Your task to perform on an android device: Where can I buy a nice beach umbrella? Image 0: 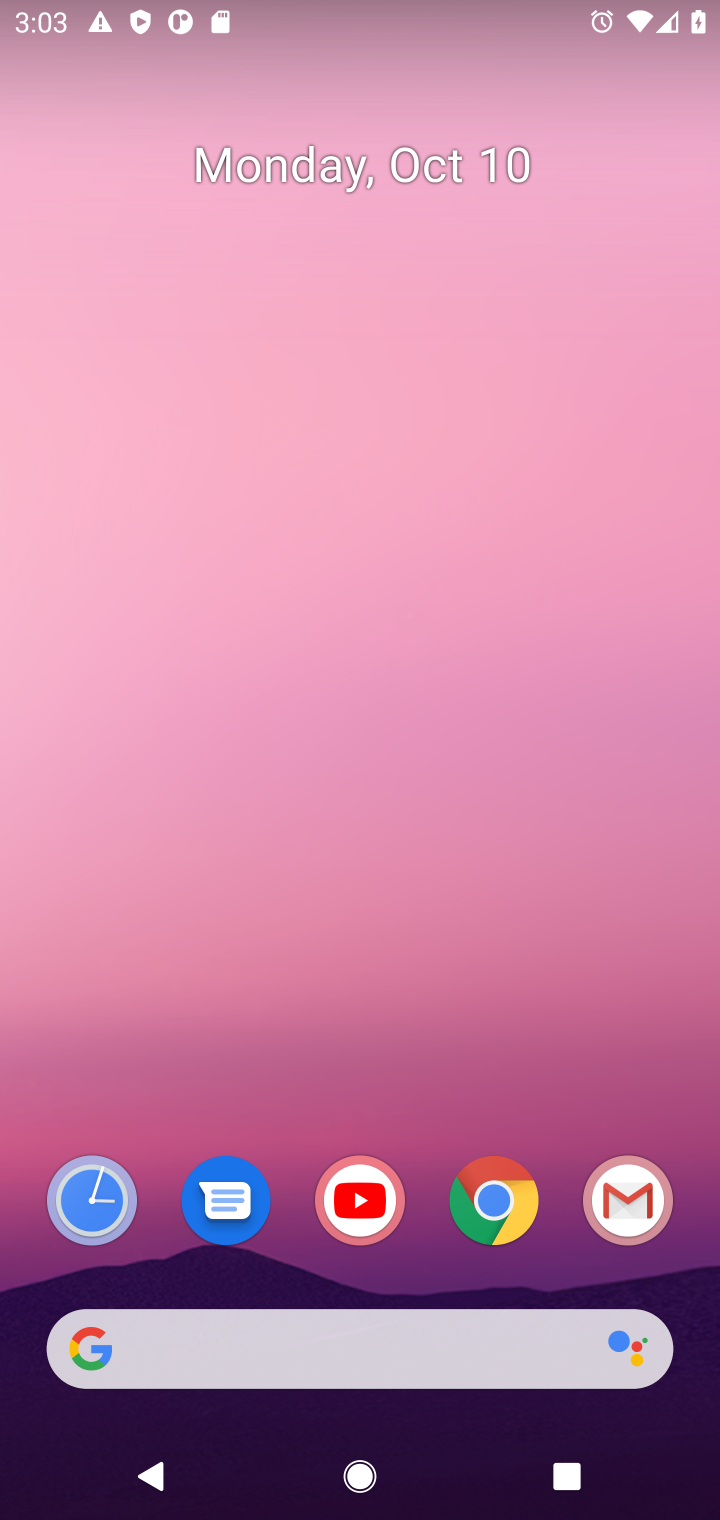
Step 0: click (499, 1202)
Your task to perform on an android device: Where can I buy a nice beach umbrella? Image 1: 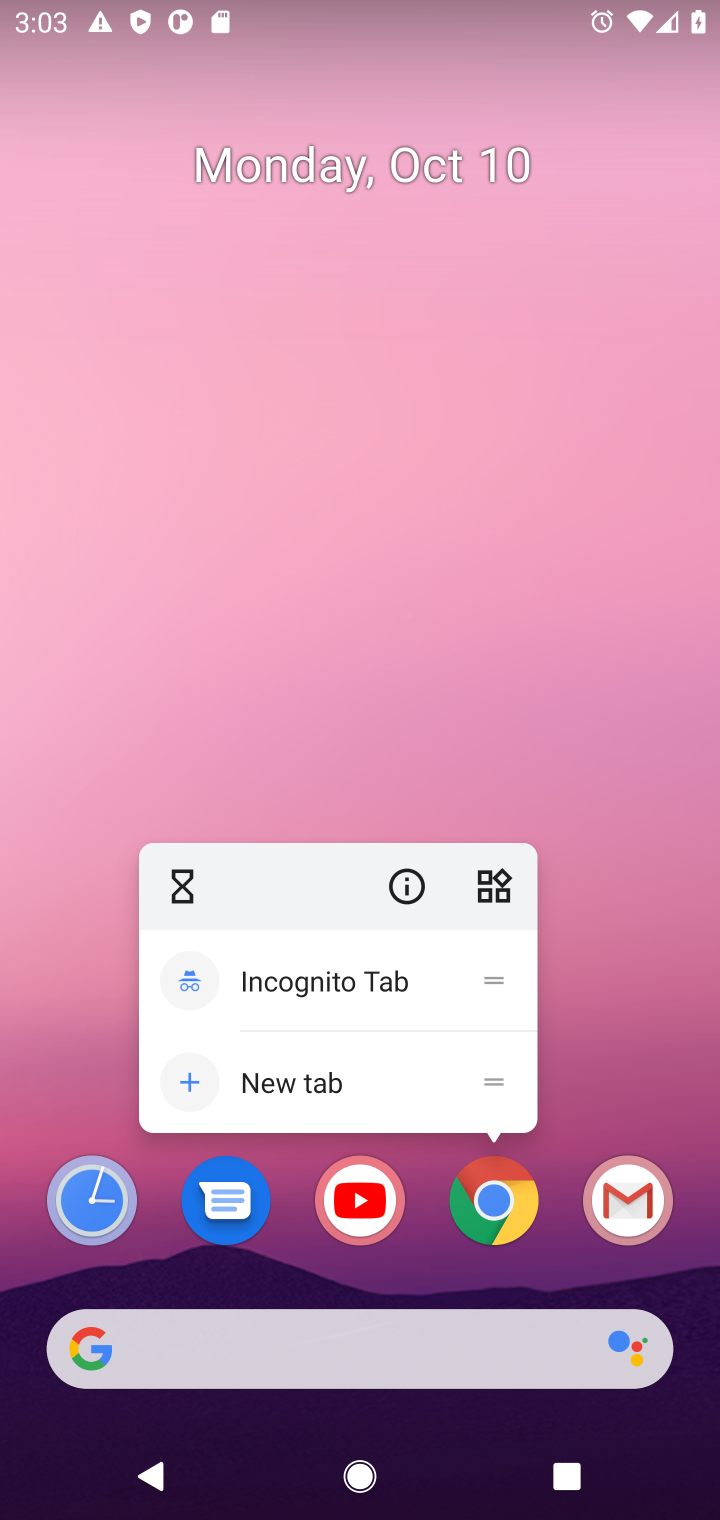
Step 1: click (507, 1223)
Your task to perform on an android device: Where can I buy a nice beach umbrella? Image 2: 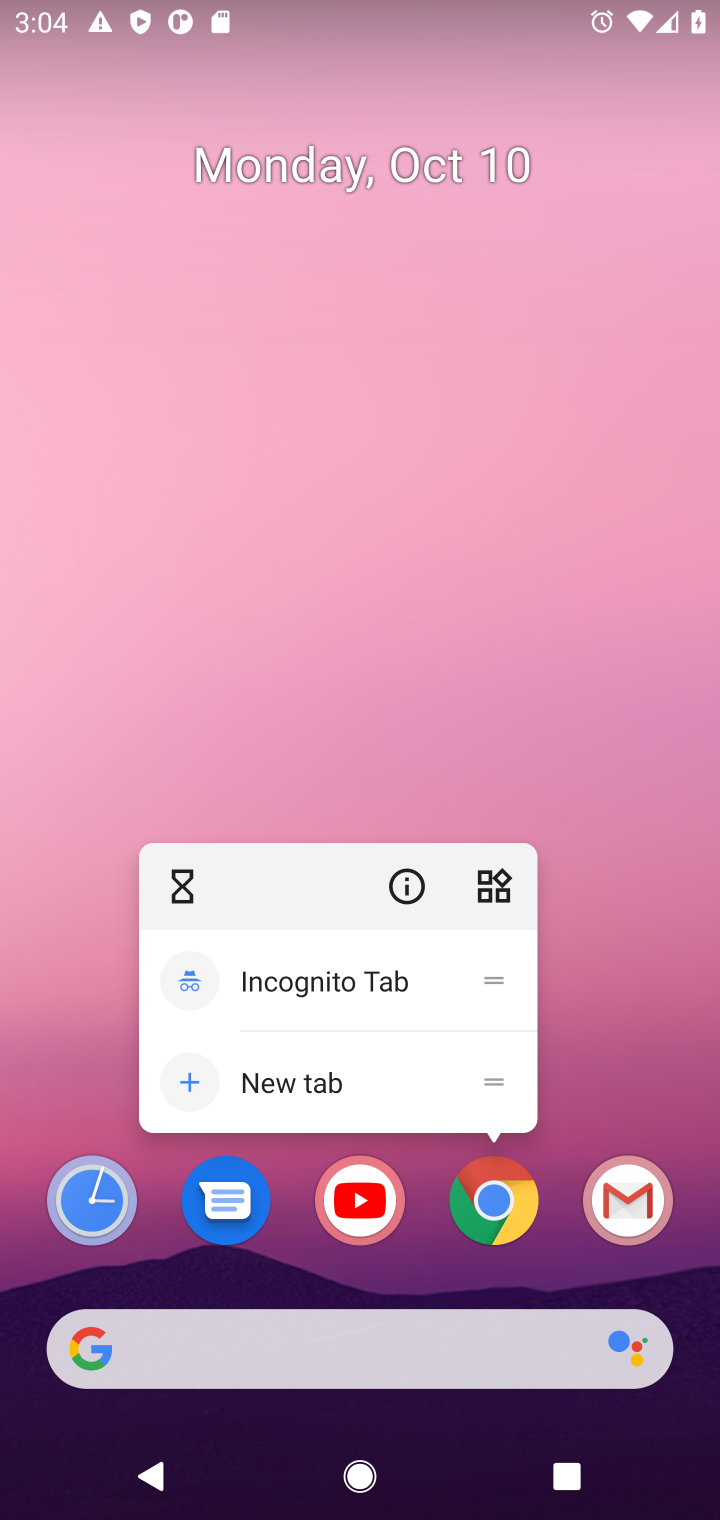
Step 2: click (486, 1213)
Your task to perform on an android device: Where can I buy a nice beach umbrella? Image 3: 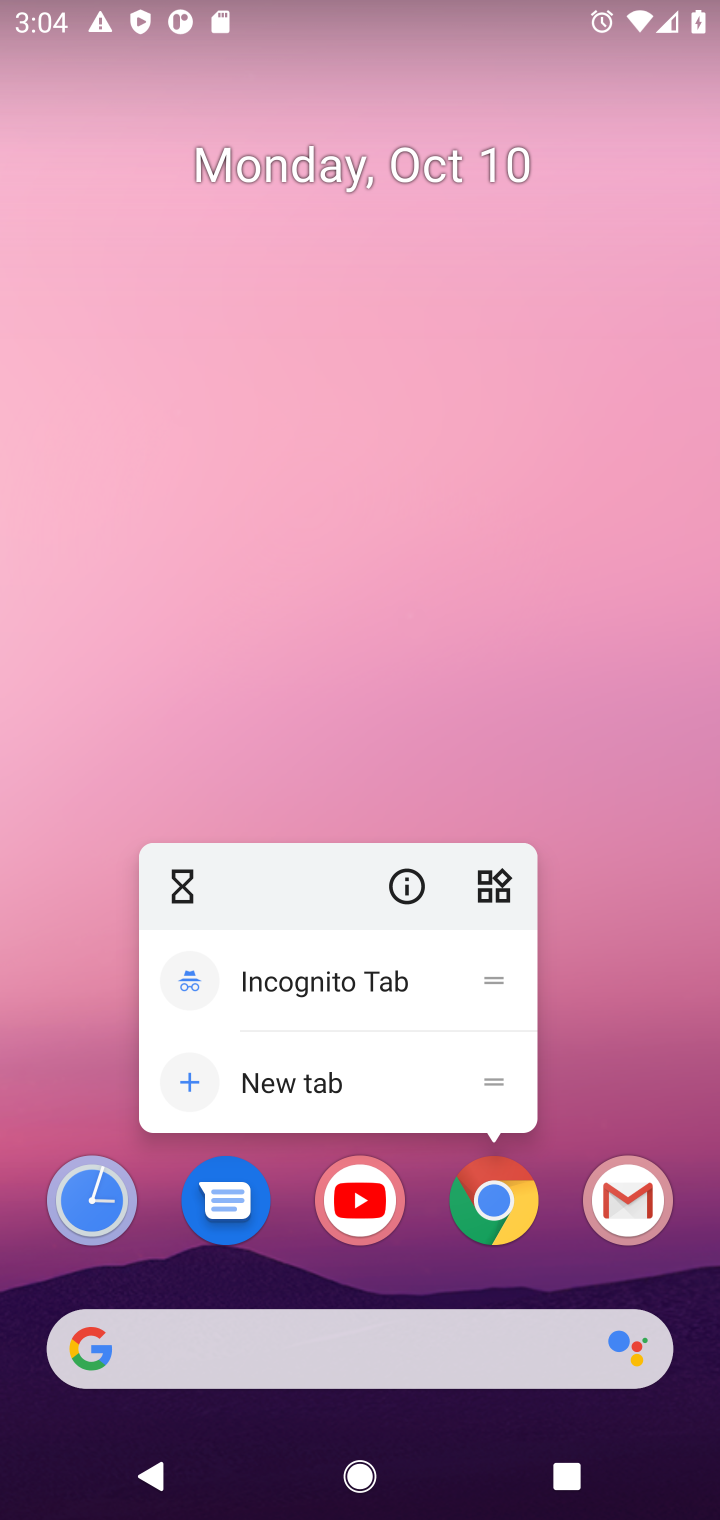
Step 3: click (507, 1201)
Your task to perform on an android device: Where can I buy a nice beach umbrella? Image 4: 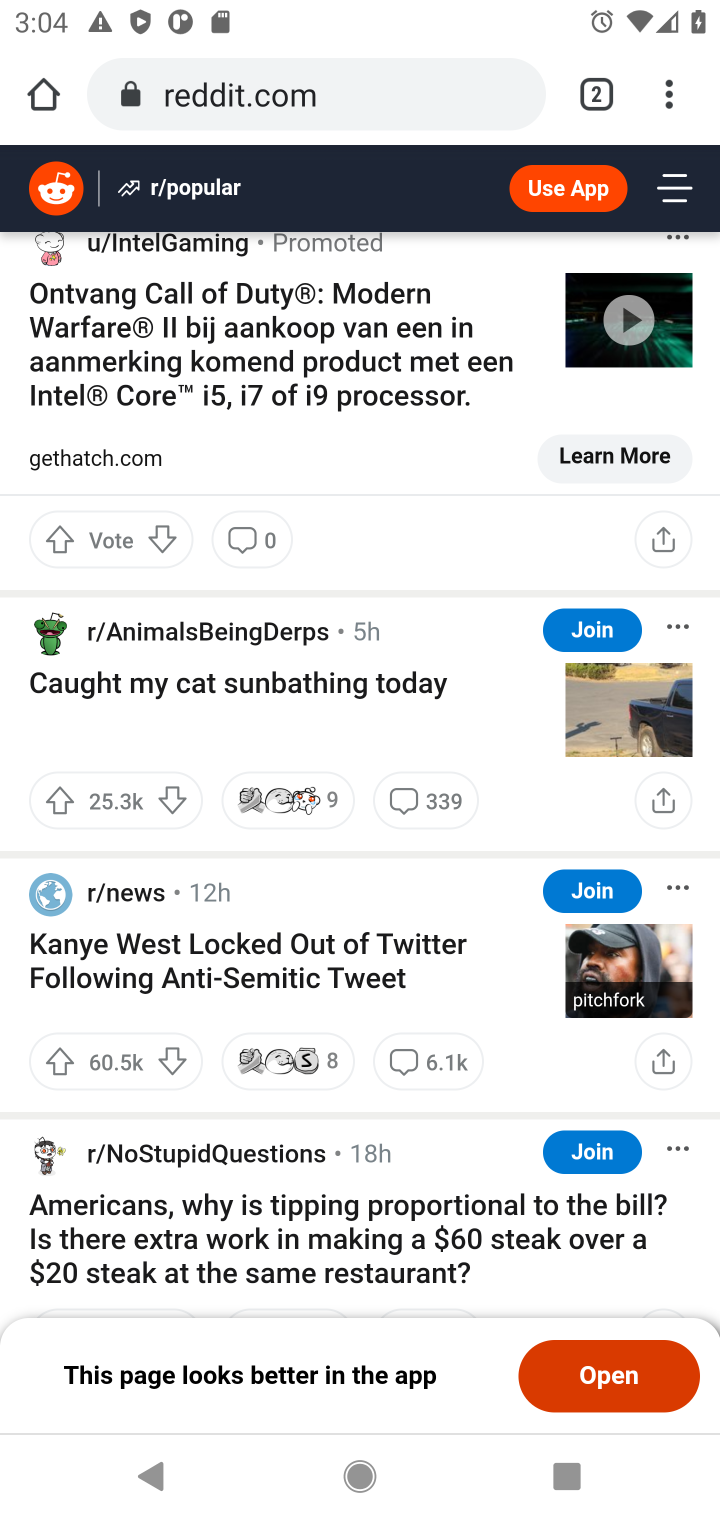
Step 4: click (308, 90)
Your task to perform on an android device: Where can I buy a nice beach umbrella? Image 5: 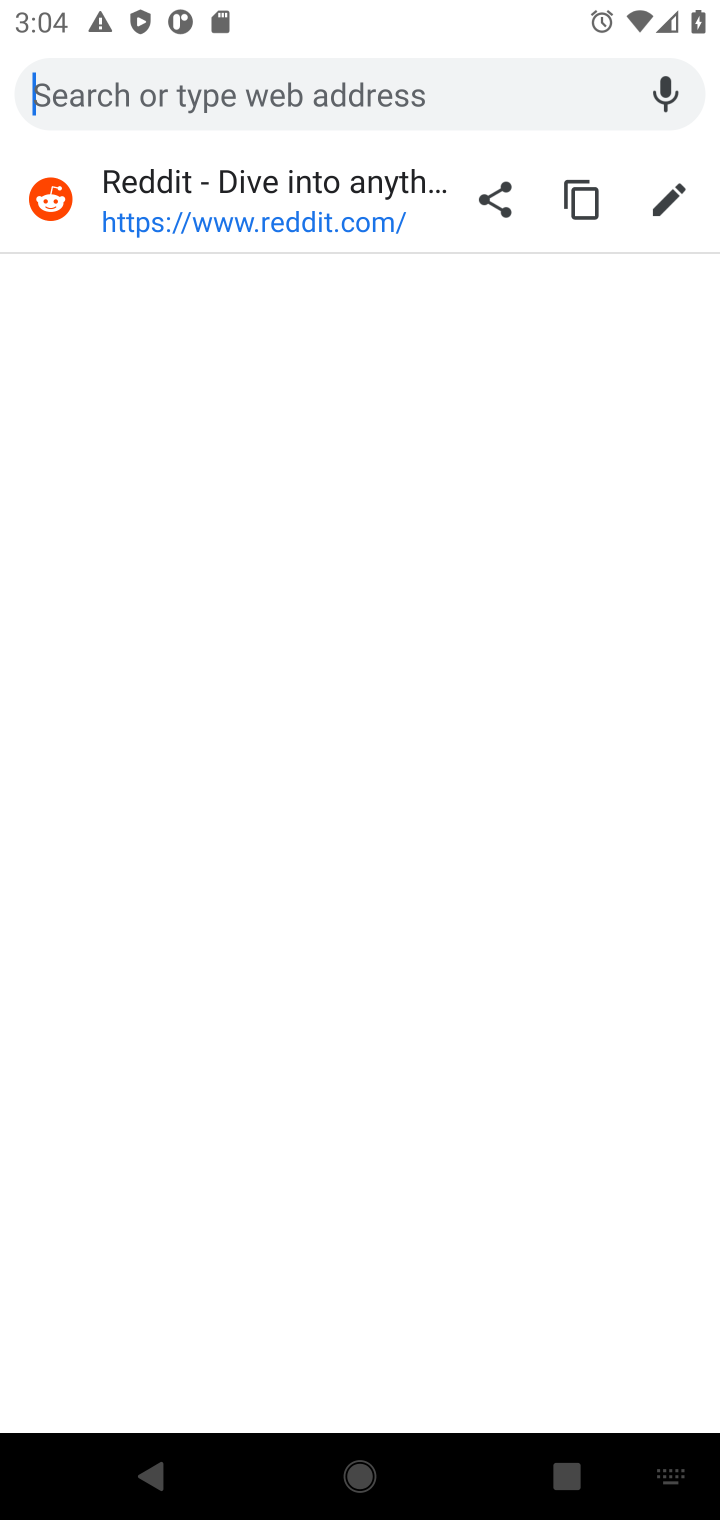
Step 5: type "Where can I buy a nice beach umbrella"
Your task to perform on an android device: Where can I buy a nice beach umbrella? Image 6: 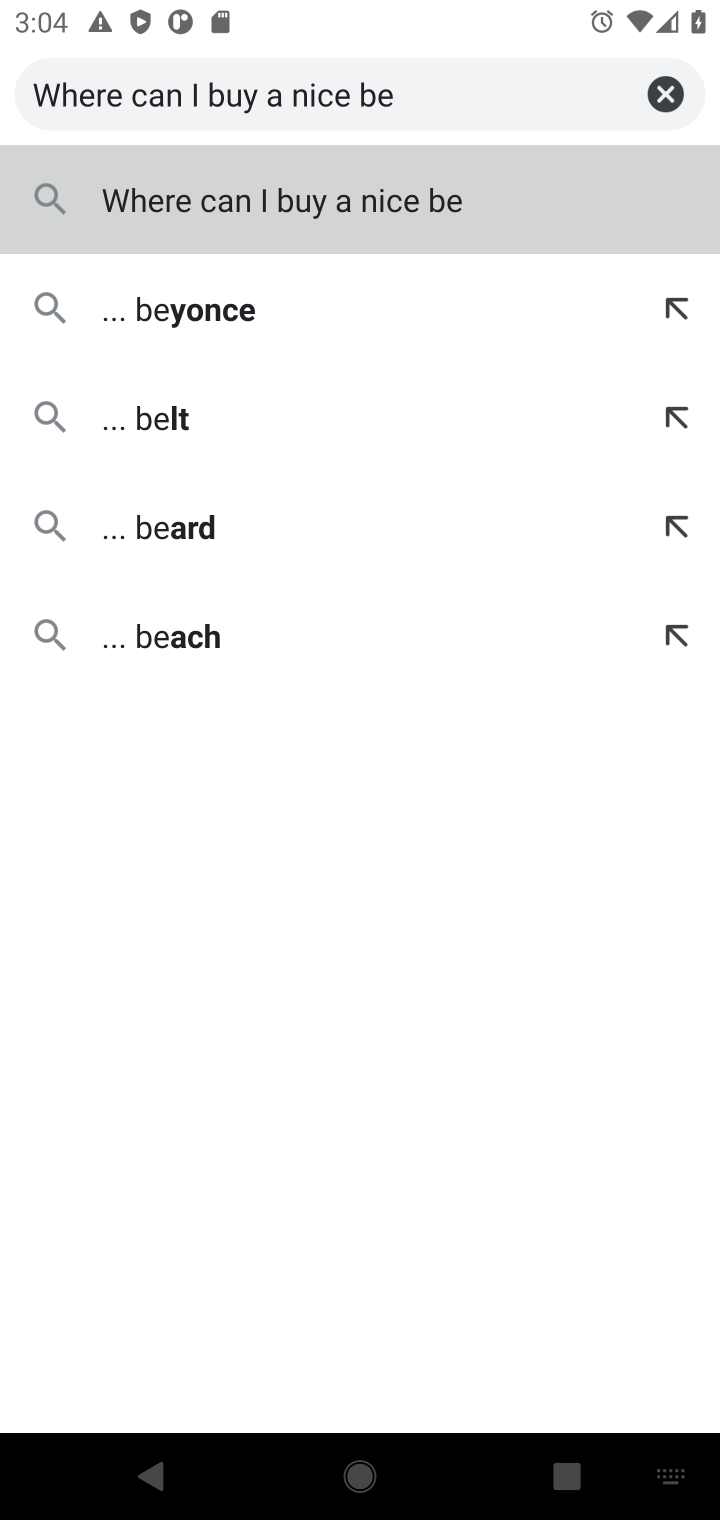
Step 6: type ""
Your task to perform on an android device: Where can I buy a nice beach umbrella? Image 7: 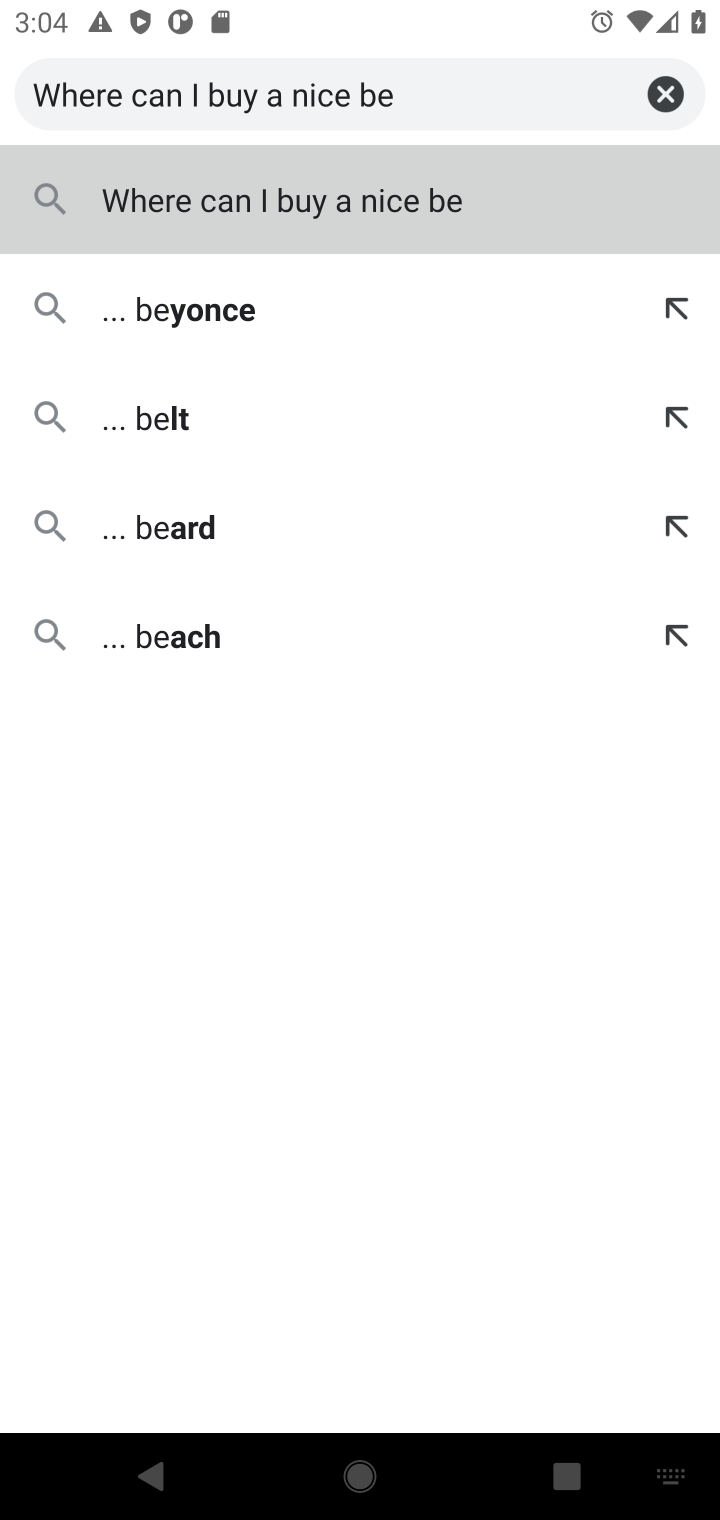
Step 7: type "ach umbrella"
Your task to perform on an android device: Where can I buy a nice beach umbrella? Image 8: 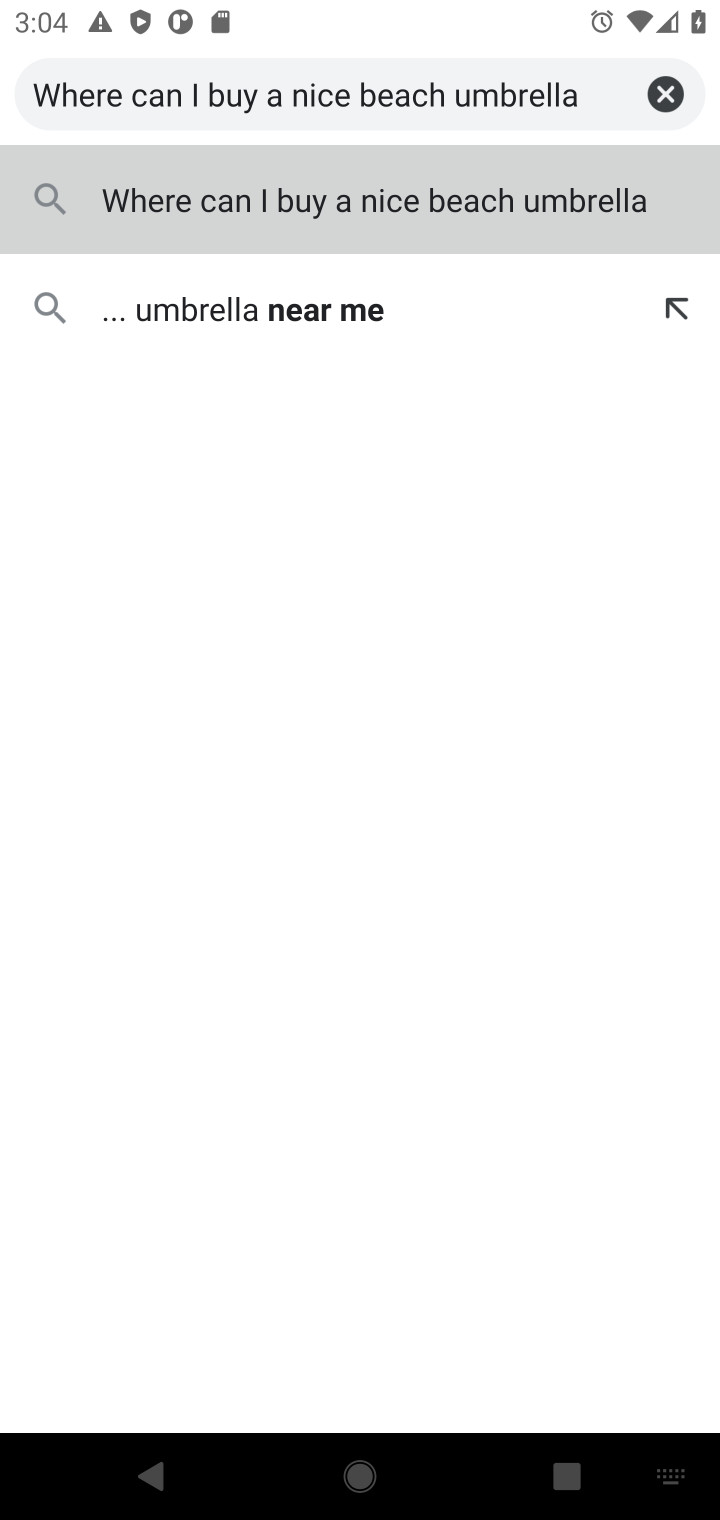
Step 8: click (343, 197)
Your task to perform on an android device: Where can I buy a nice beach umbrella? Image 9: 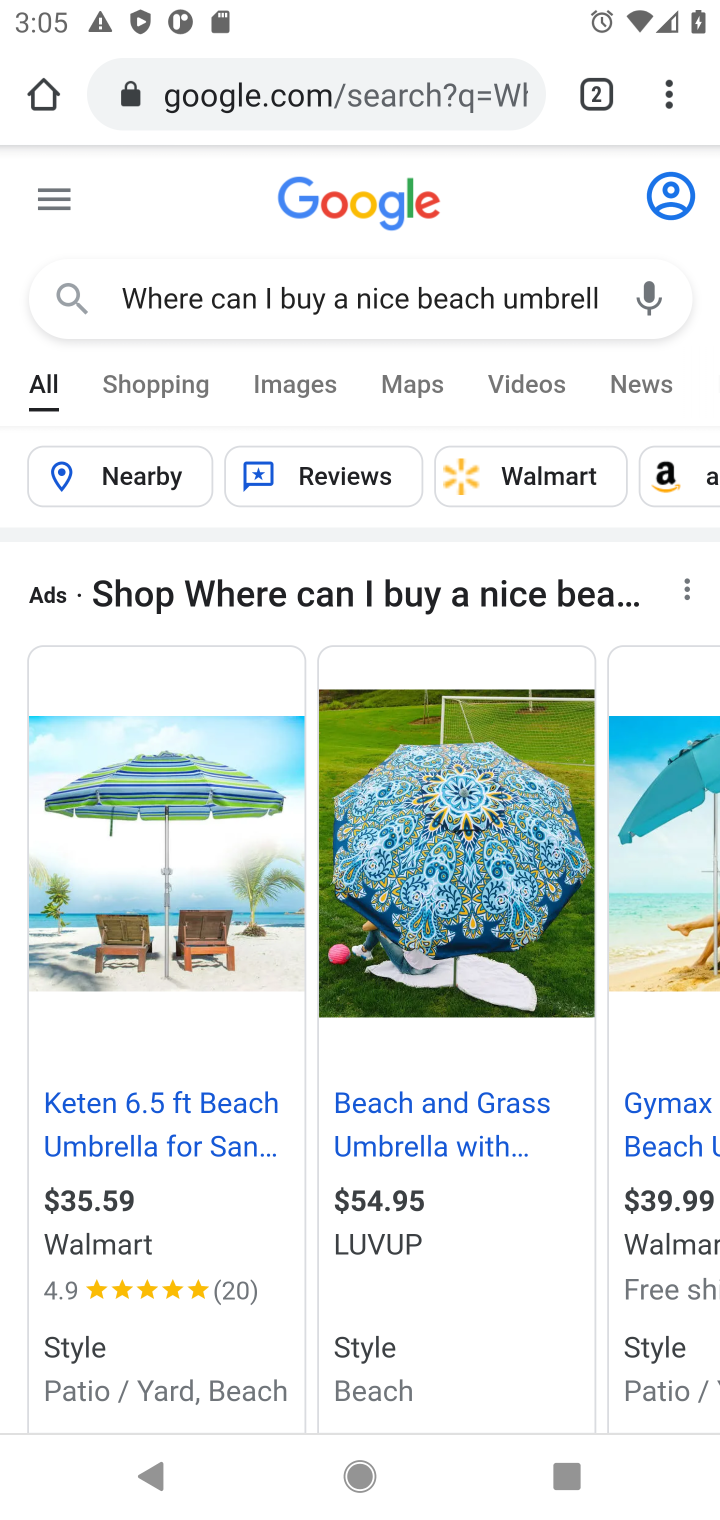
Step 9: task complete